Your task to perform on an android device: Open the web browser Image 0: 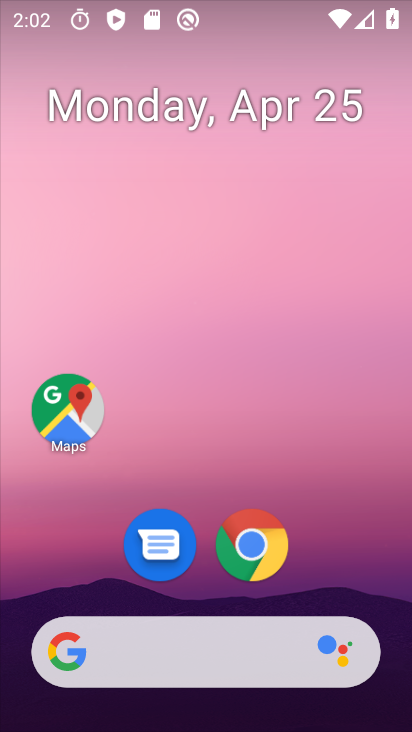
Step 0: drag from (306, 581) to (298, 135)
Your task to perform on an android device: Open the web browser Image 1: 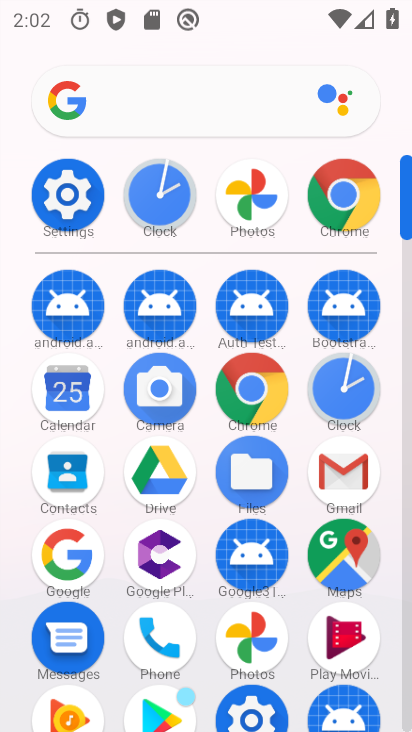
Step 1: click (80, 560)
Your task to perform on an android device: Open the web browser Image 2: 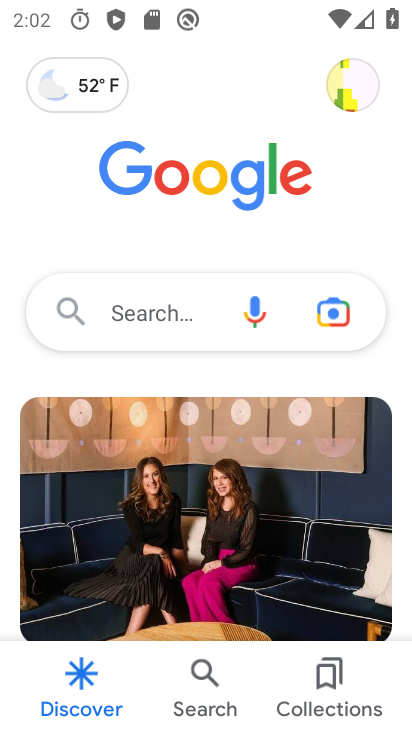
Step 2: task complete